Your task to perform on an android device: turn off sleep mode Image 0: 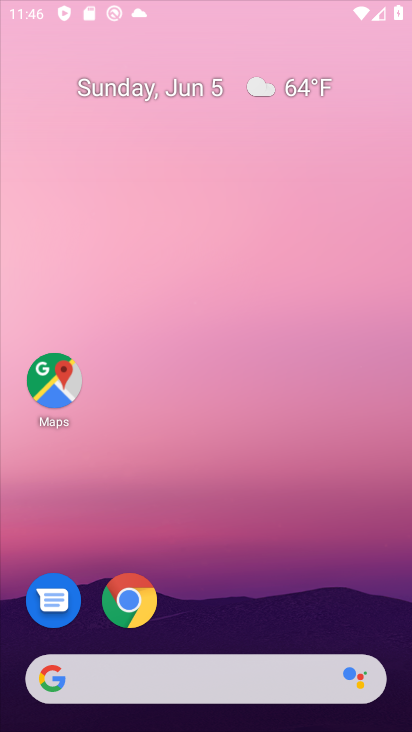
Step 0: click (88, 122)
Your task to perform on an android device: turn off sleep mode Image 1: 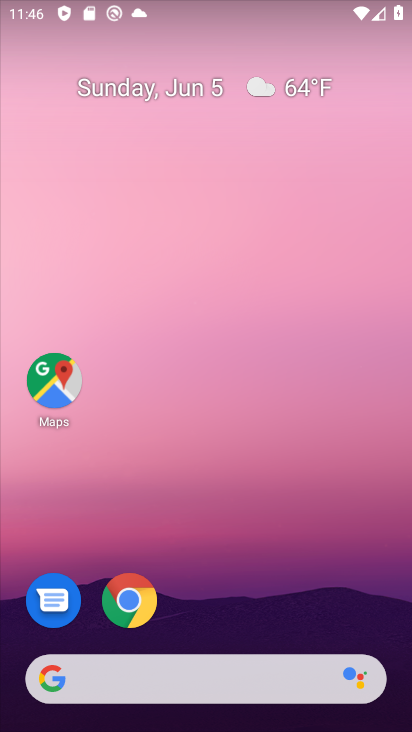
Step 1: drag from (209, 674) to (132, 196)
Your task to perform on an android device: turn off sleep mode Image 2: 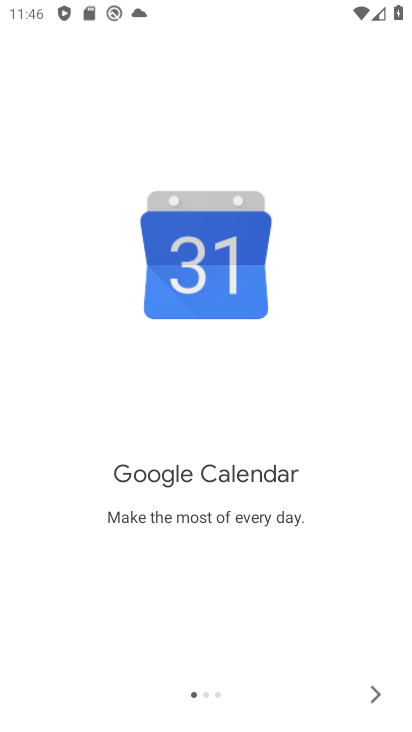
Step 2: press back button
Your task to perform on an android device: turn off sleep mode Image 3: 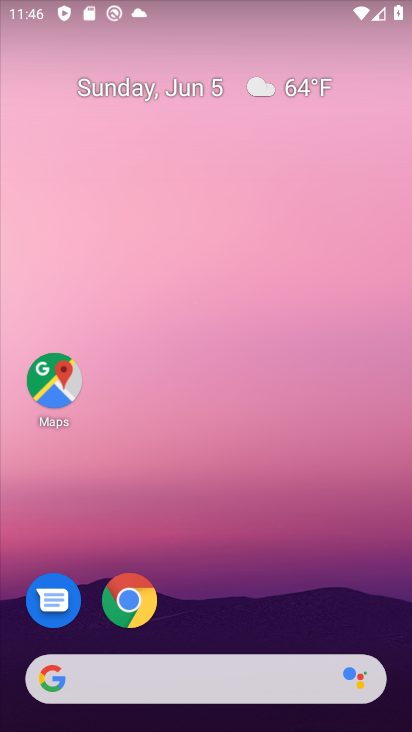
Step 3: drag from (252, 696) to (84, 102)
Your task to perform on an android device: turn off sleep mode Image 4: 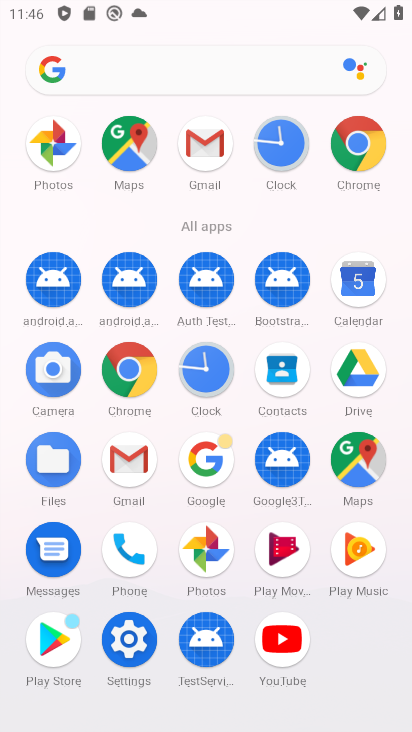
Step 4: click (136, 642)
Your task to perform on an android device: turn off sleep mode Image 5: 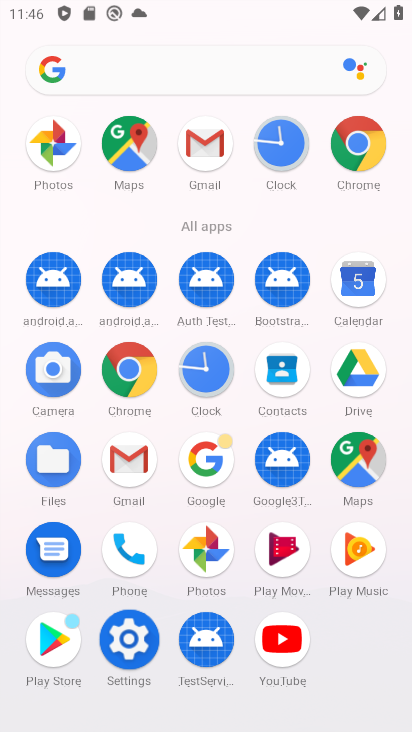
Step 5: click (136, 642)
Your task to perform on an android device: turn off sleep mode Image 6: 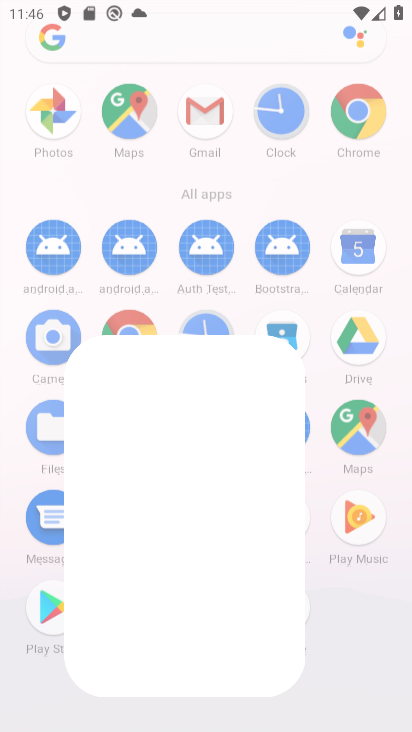
Step 6: click (134, 642)
Your task to perform on an android device: turn off sleep mode Image 7: 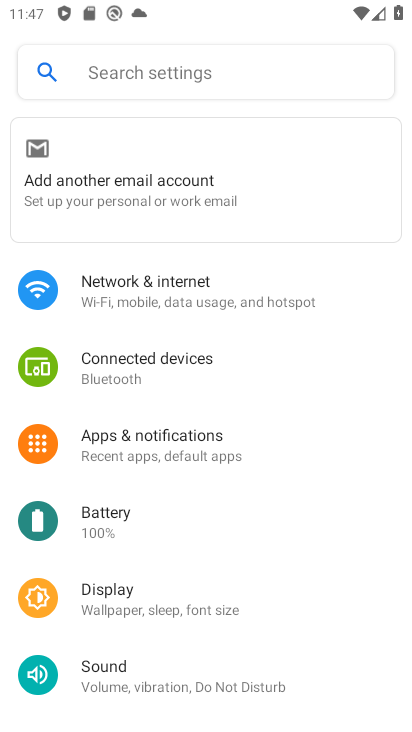
Step 7: drag from (183, 461) to (90, 115)
Your task to perform on an android device: turn off sleep mode Image 8: 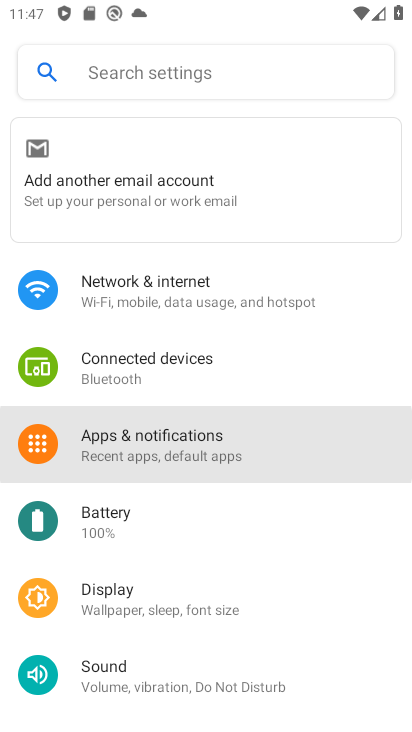
Step 8: drag from (135, 419) to (136, 105)
Your task to perform on an android device: turn off sleep mode Image 9: 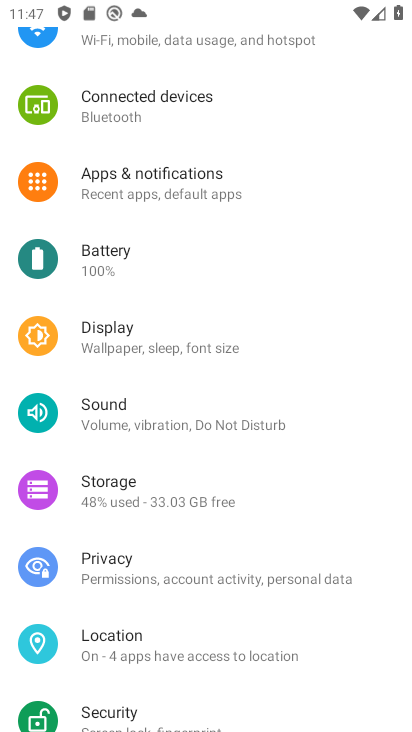
Step 9: drag from (136, 357) to (136, 177)
Your task to perform on an android device: turn off sleep mode Image 10: 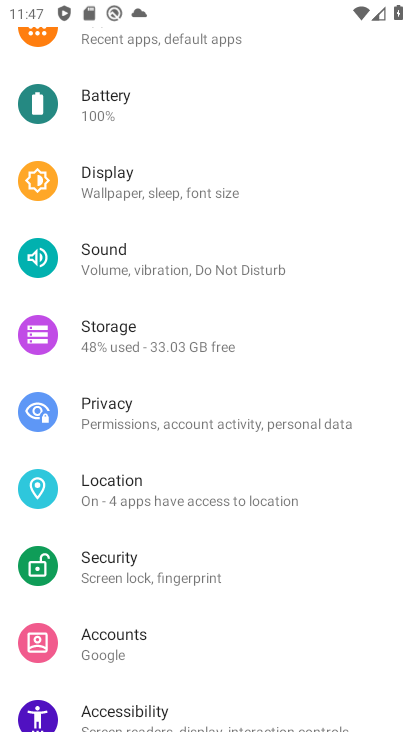
Step 10: drag from (169, 449) to (170, 189)
Your task to perform on an android device: turn off sleep mode Image 11: 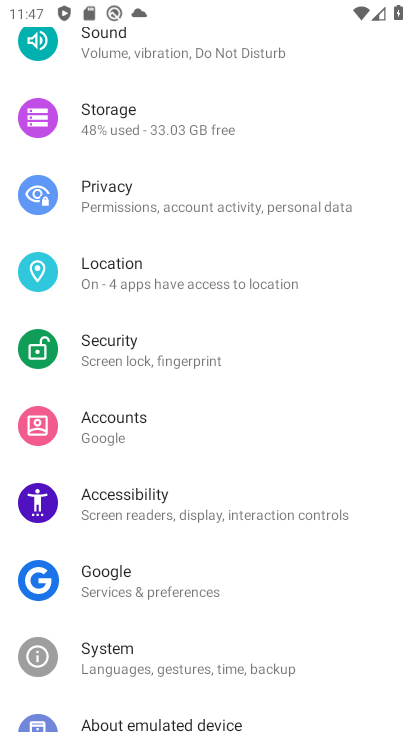
Step 11: click (120, 198)
Your task to perform on an android device: turn off sleep mode Image 12: 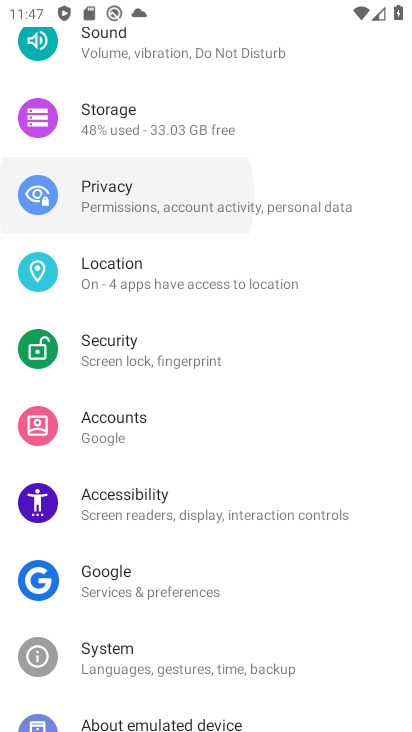
Step 12: click (120, 198)
Your task to perform on an android device: turn off sleep mode Image 13: 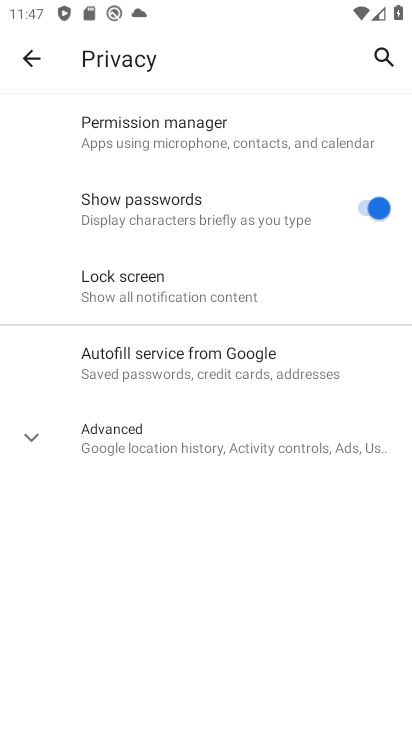
Step 13: click (18, 65)
Your task to perform on an android device: turn off sleep mode Image 14: 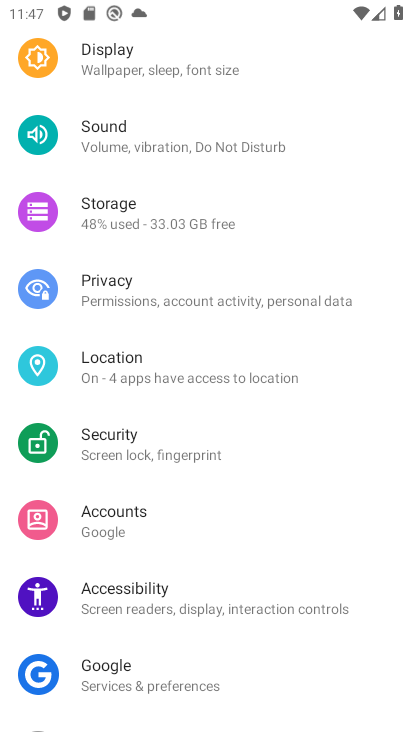
Step 14: click (102, 61)
Your task to perform on an android device: turn off sleep mode Image 15: 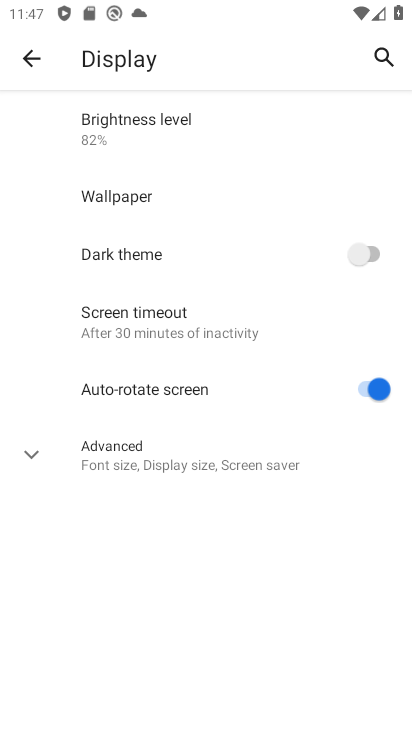
Step 15: task complete